Your task to perform on an android device: open app "Indeed Job Search" Image 0: 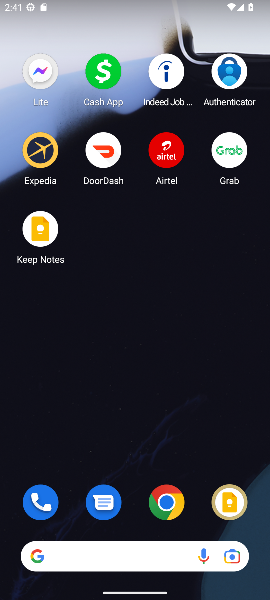
Step 0: click (133, 388)
Your task to perform on an android device: open app "Indeed Job Search" Image 1: 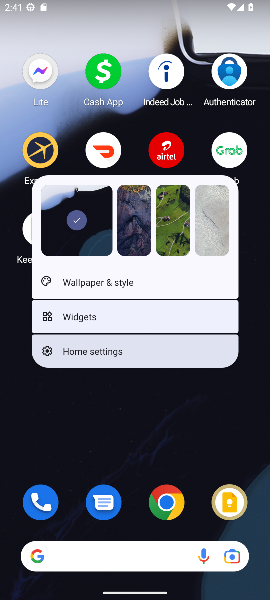
Step 1: click (186, 78)
Your task to perform on an android device: open app "Indeed Job Search" Image 2: 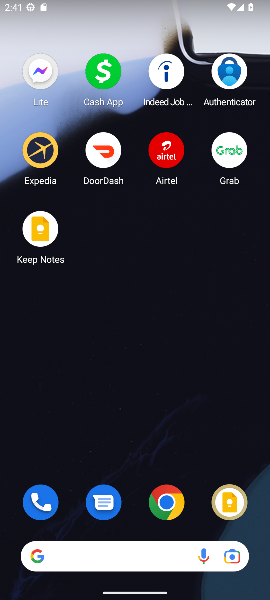
Step 2: click (175, 75)
Your task to perform on an android device: open app "Indeed Job Search" Image 3: 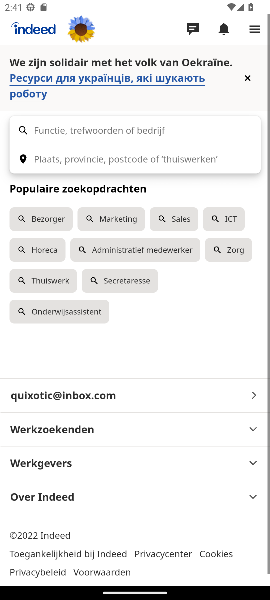
Step 3: task complete